Your task to perform on an android device: see tabs open on other devices in the chrome app Image 0: 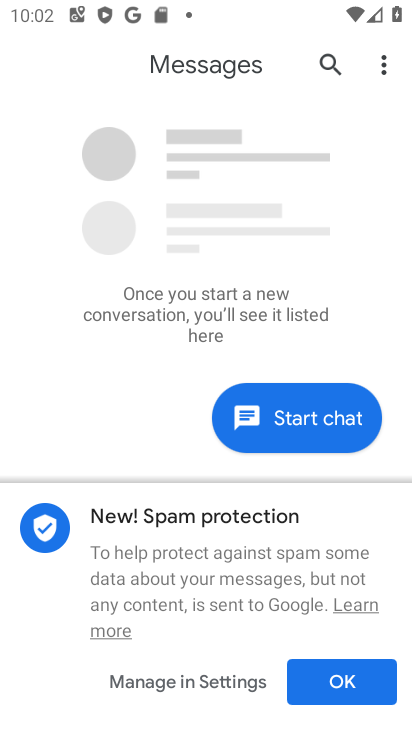
Step 0: press home button
Your task to perform on an android device: see tabs open on other devices in the chrome app Image 1: 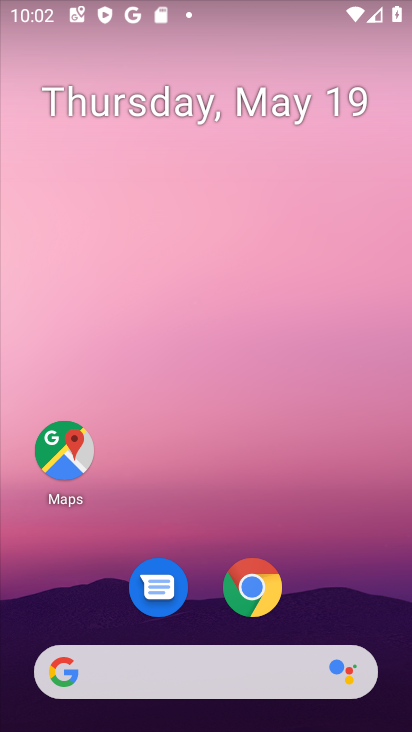
Step 1: click (264, 593)
Your task to perform on an android device: see tabs open on other devices in the chrome app Image 2: 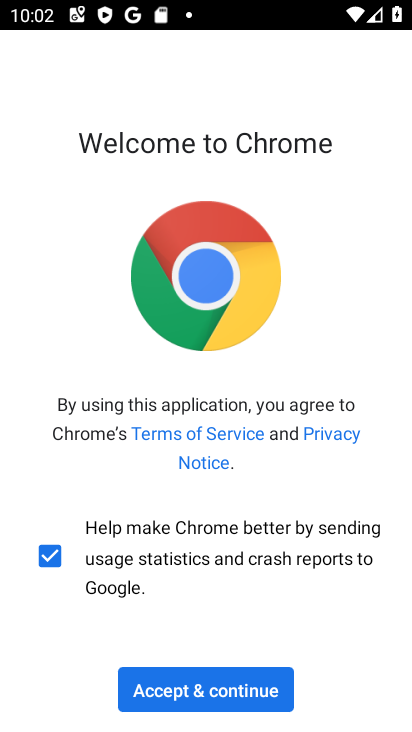
Step 2: click (233, 695)
Your task to perform on an android device: see tabs open on other devices in the chrome app Image 3: 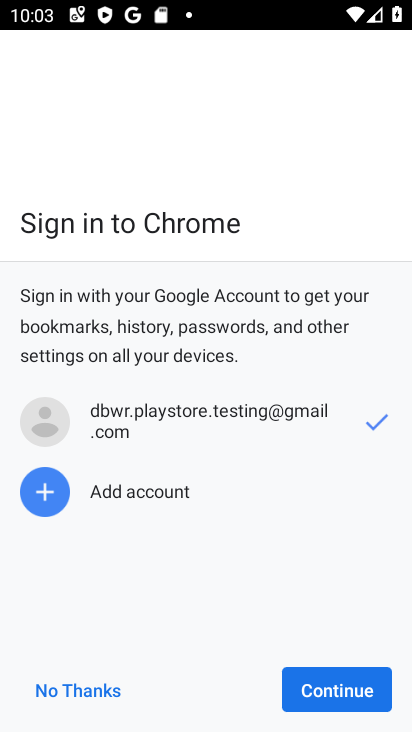
Step 3: click (362, 687)
Your task to perform on an android device: see tabs open on other devices in the chrome app Image 4: 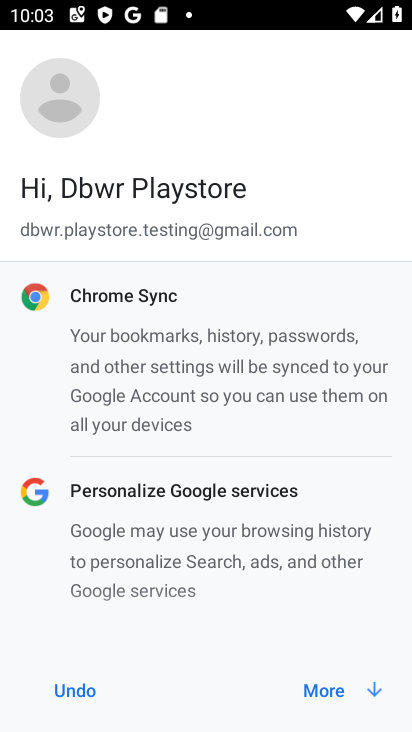
Step 4: click (362, 687)
Your task to perform on an android device: see tabs open on other devices in the chrome app Image 5: 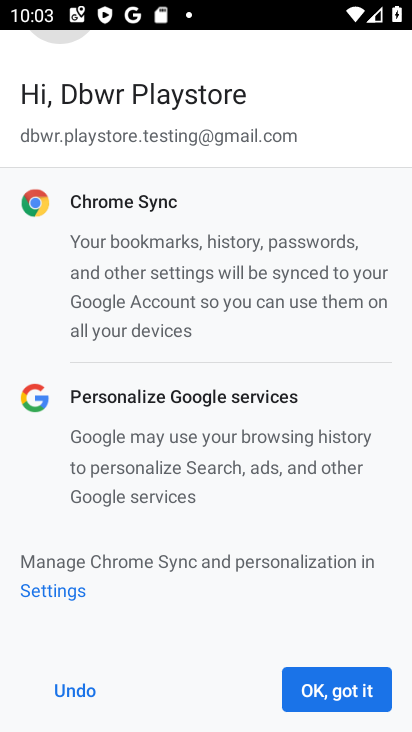
Step 5: click (362, 687)
Your task to perform on an android device: see tabs open on other devices in the chrome app Image 6: 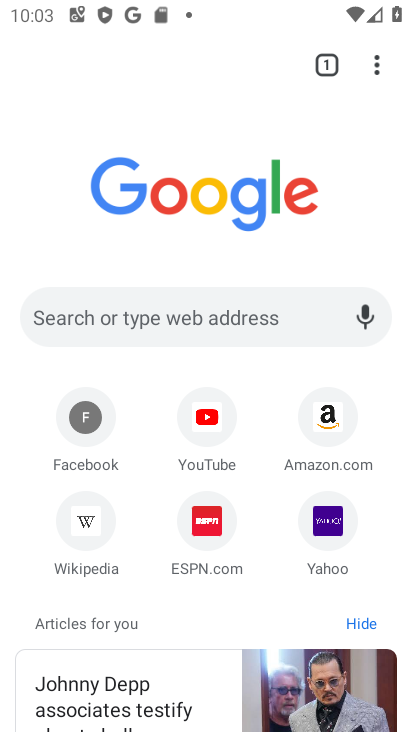
Step 6: click (374, 76)
Your task to perform on an android device: see tabs open on other devices in the chrome app Image 7: 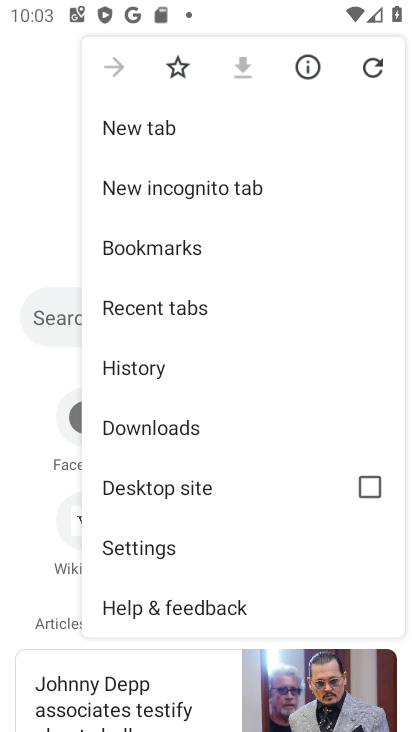
Step 7: click (206, 297)
Your task to perform on an android device: see tabs open on other devices in the chrome app Image 8: 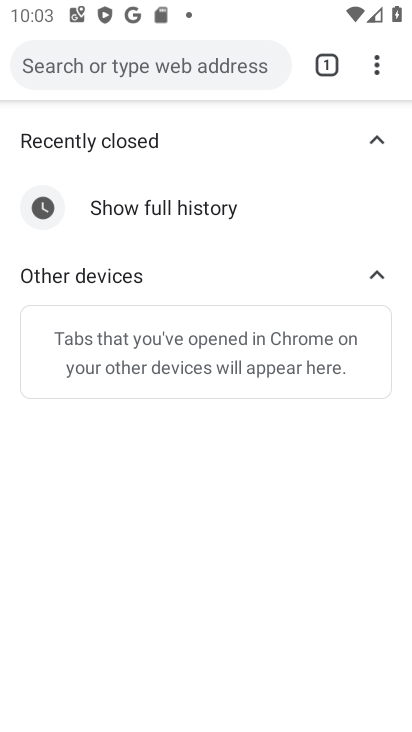
Step 8: task complete